Your task to perform on an android device: Open battery settings Image 0: 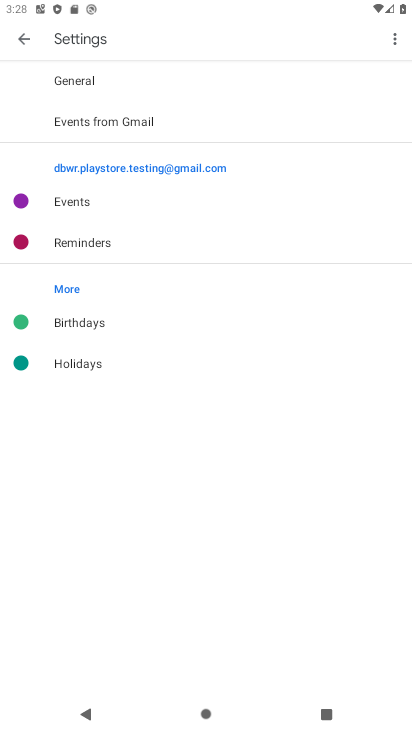
Step 0: press home button
Your task to perform on an android device: Open battery settings Image 1: 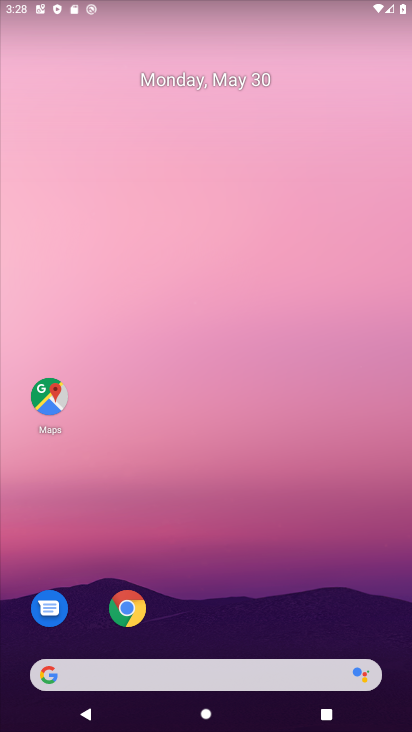
Step 1: drag from (192, 618) to (247, 171)
Your task to perform on an android device: Open battery settings Image 2: 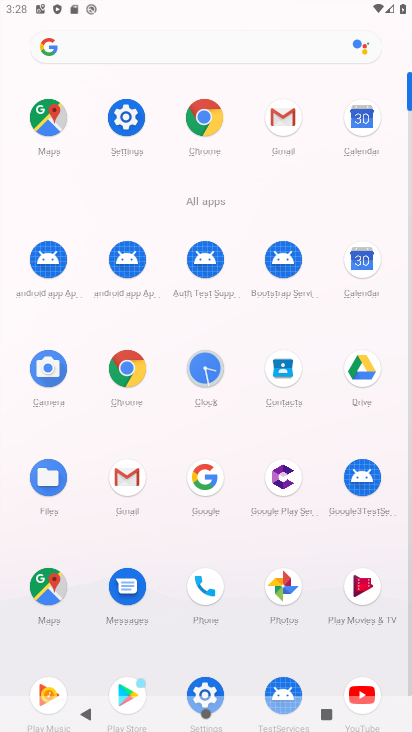
Step 2: click (123, 110)
Your task to perform on an android device: Open battery settings Image 3: 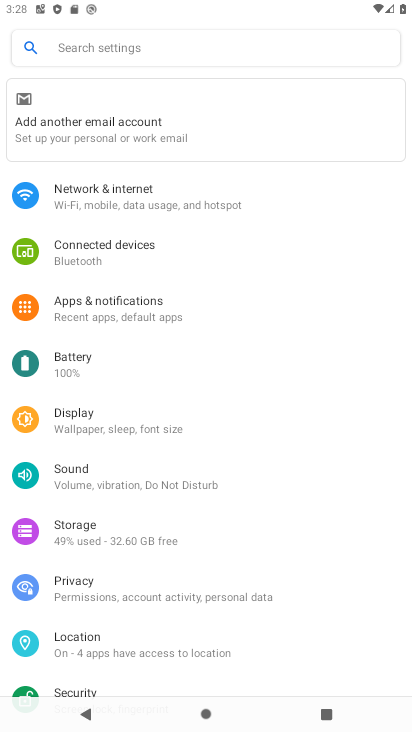
Step 3: click (81, 359)
Your task to perform on an android device: Open battery settings Image 4: 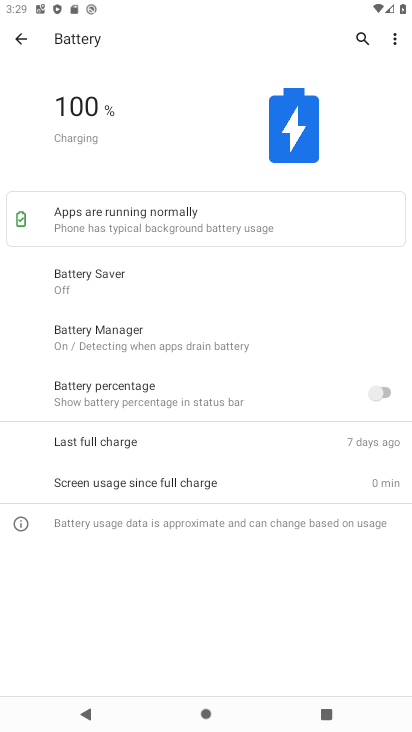
Step 4: task complete